Your task to perform on an android device: What's the weather going to be this weekend? Image 0: 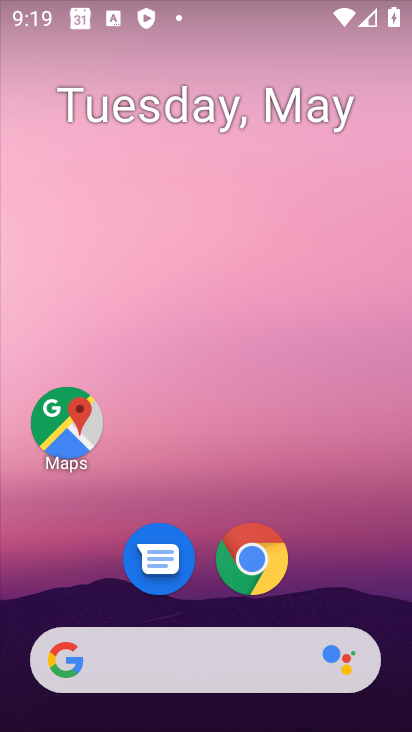
Step 0: drag from (94, 259) to (288, 215)
Your task to perform on an android device: What's the weather going to be this weekend? Image 1: 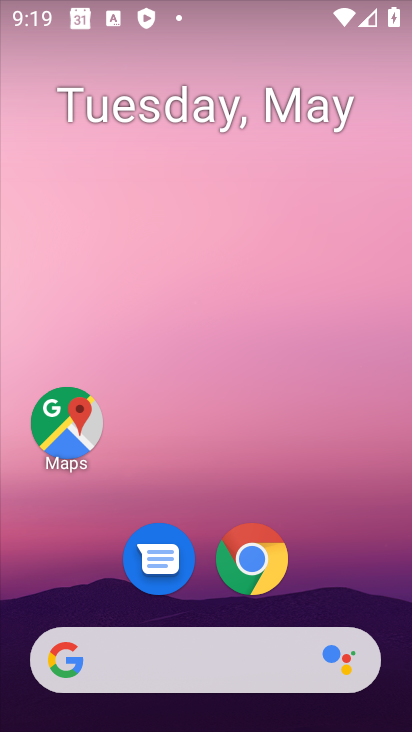
Step 1: drag from (88, 301) to (343, 288)
Your task to perform on an android device: What's the weather going to be this weekend? Image 2: 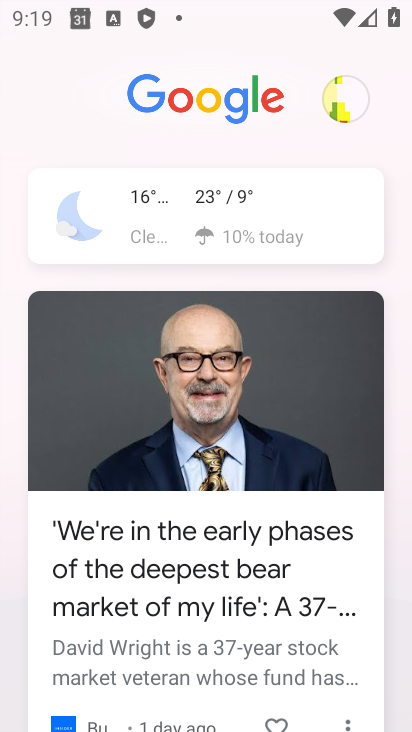
Step 2: click (144, 206)
Your task to perform on an android device: What's the weather going to be this weekend? Image 3: 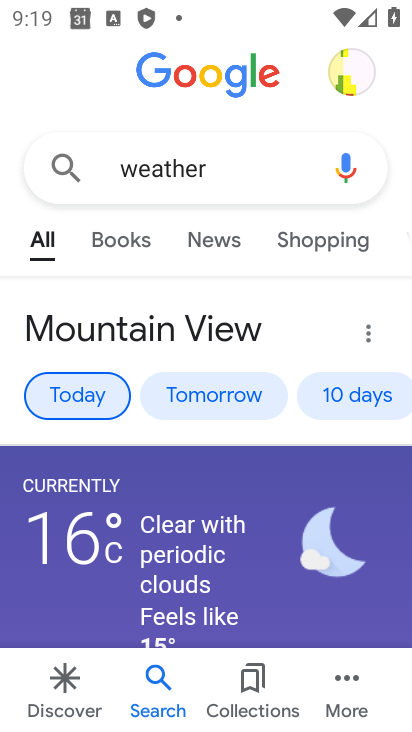
Step 3: click (350, 393)
Your task to perform on an android device: What's the weather going to be this weekend? Image 4: 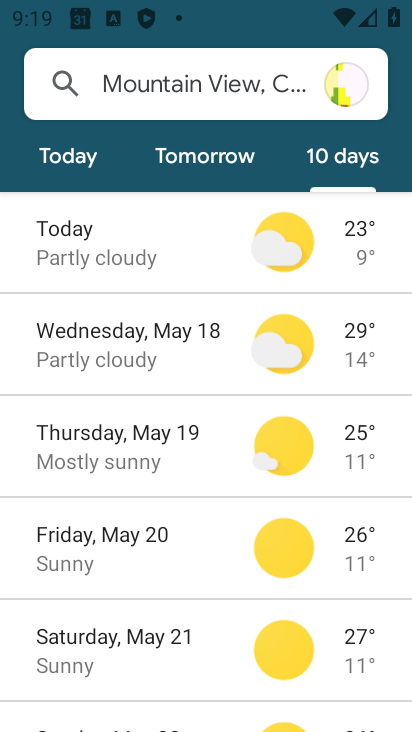
Step 4: task complete